Your task to perform on an android device: turn off airplane mode Image 0: 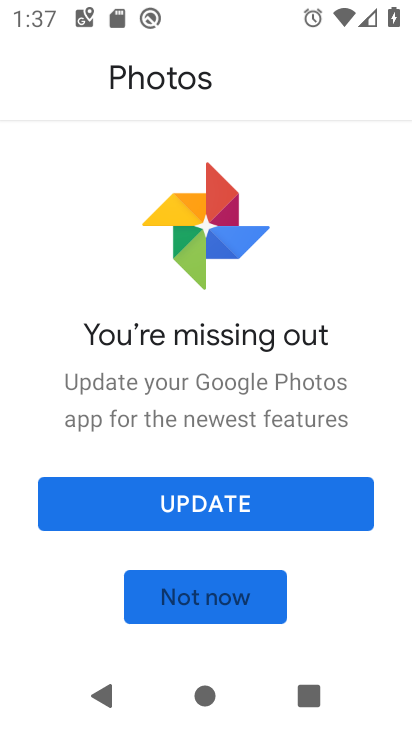
Step 0: press home button
Your task to perform on an android device: turn off airplane mode Image 1: 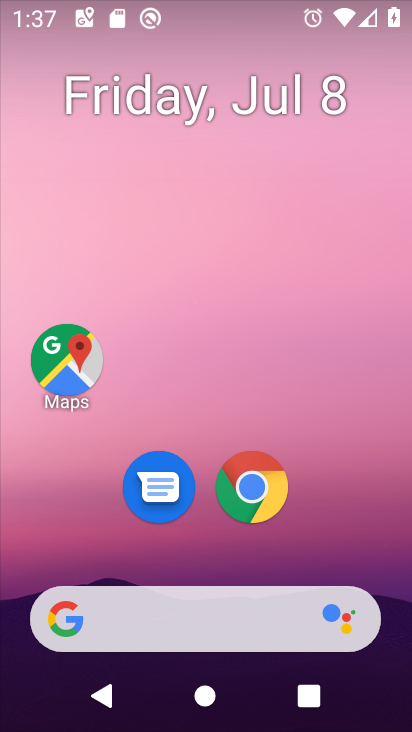
Step 1: drag from (350, 552) to (365, 260)
Your task to perform on an android device: turn off airplane mode Image 2: 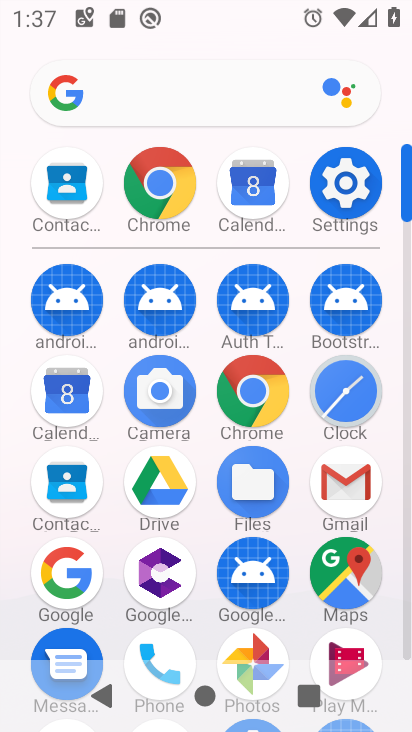
Step 2: click (353, 200)
Your task to perform on an android device: turn off airplane mode Image 3: 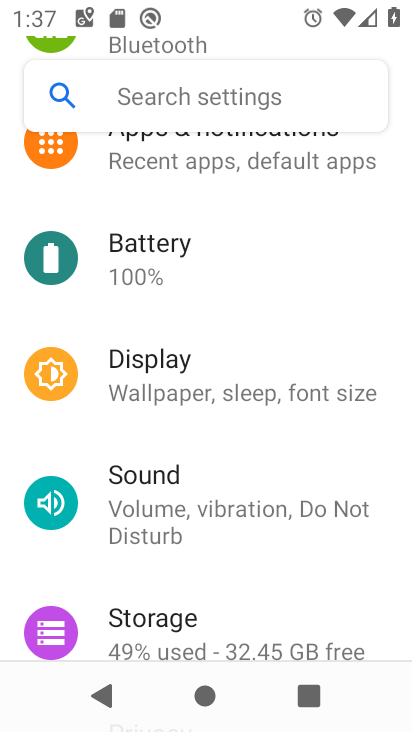
Step 3: drag from (360, 273) to (365, 335)
Your task to perform on an android device: turn off airplane mode Image 4: 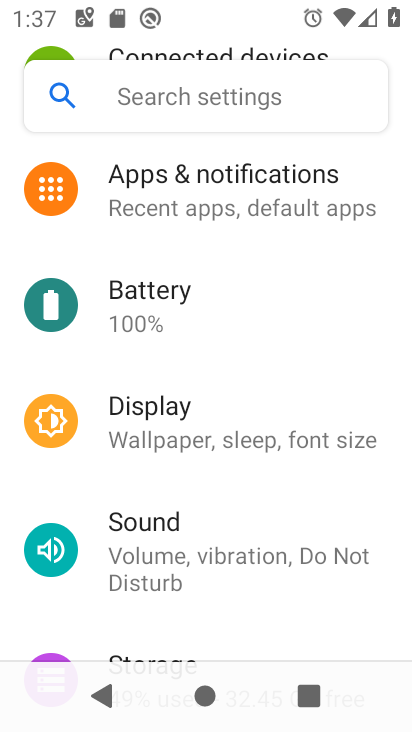
Step 4: drag from (373, 309) to (383, 424)
Your task to perform on an android device: turn off airplane mode Image 5: 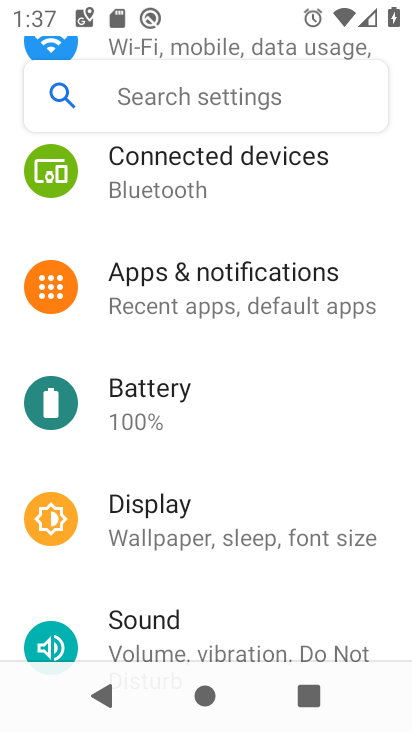
Step 5: drag from (367, 348) to (363, 467)
Your task to perform on an android device: turn off airplane mode Image 6: 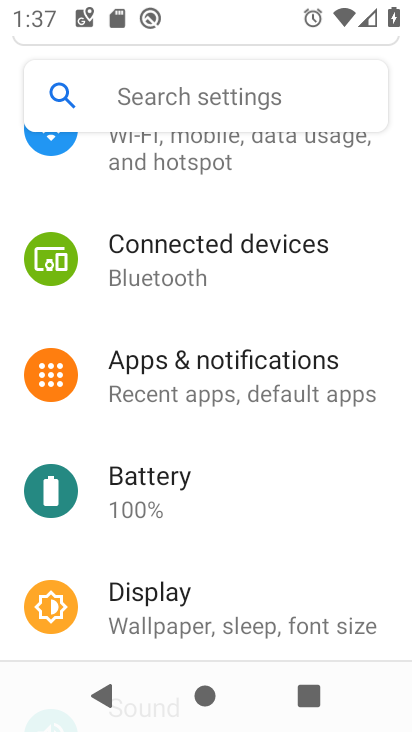
Step 6: drag from (369, 320) to (373, 426)
Your task to perform on an android device: turn off airplane mode Image 7: 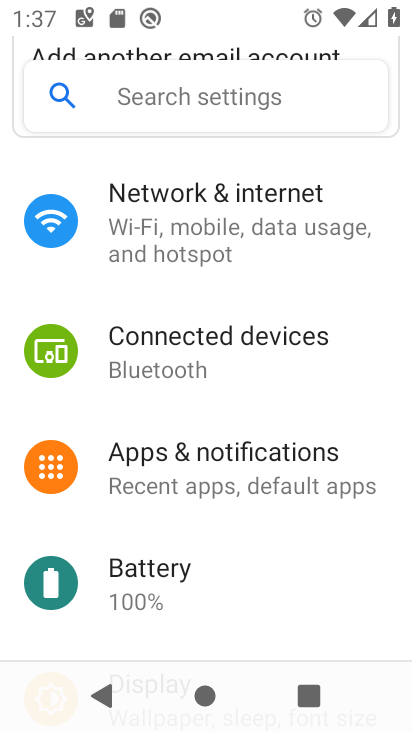
Step 7: drag from (361, 314) to (364, 556)
Your task to perform on an android device: turn off airplane mode Image 8: 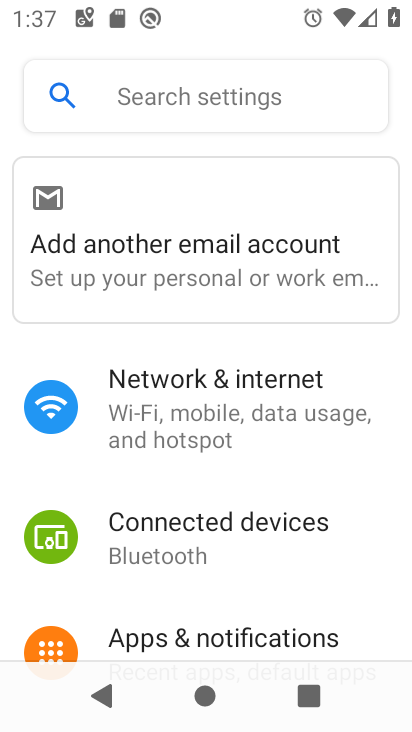
Step 8: click (307, 406)
Your task to perform on an android device: turn off airplane mode Image 9: 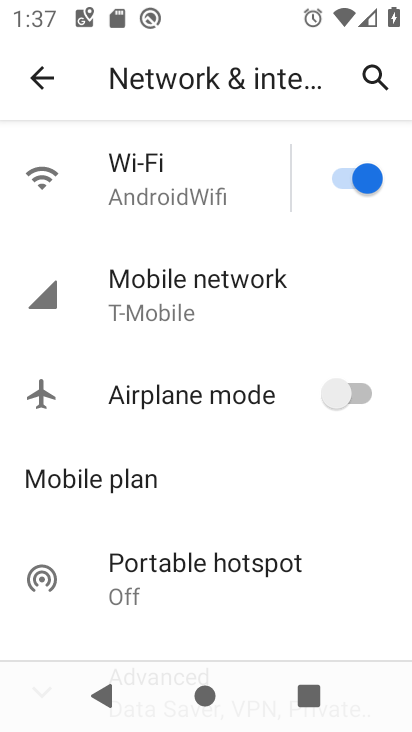
Step 9: task complete